Your task to perform on an android device: Open calendar and show me the second week of next month Image 0: 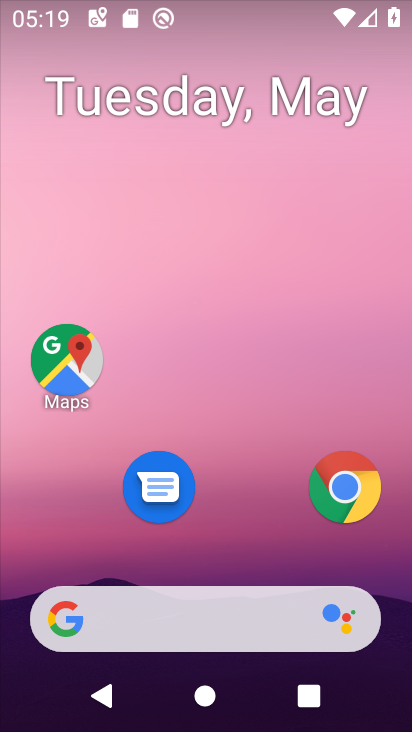
Step 0: drag from (225, 547) to (213, 62)
Your task to perform on an android device: Open calendar and show me the second week of next month Image 1: 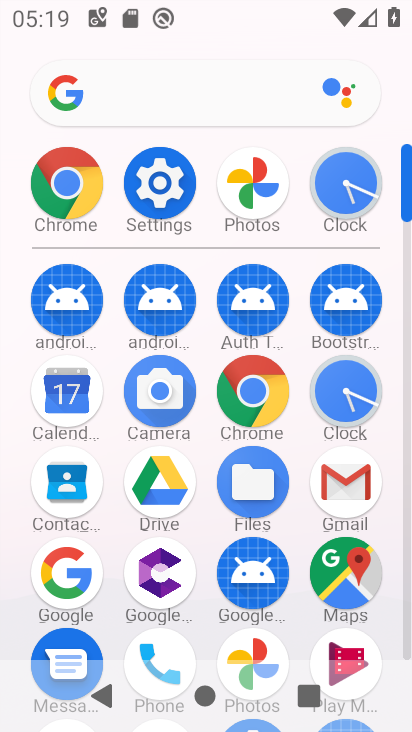
Step 1: click (62, 422)
Your task to perform on an android device: Open calendar and show me the second week of next month Image 2: 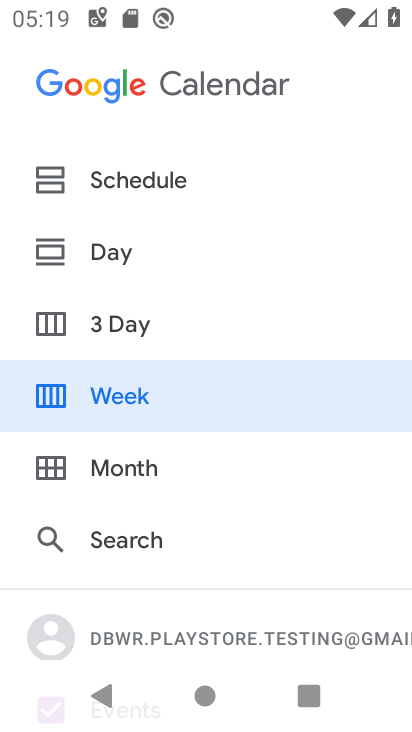
Step 2: click (111, 696)
Your task to perform on an android device: Open calendar and show me the second week of next month Image 3: 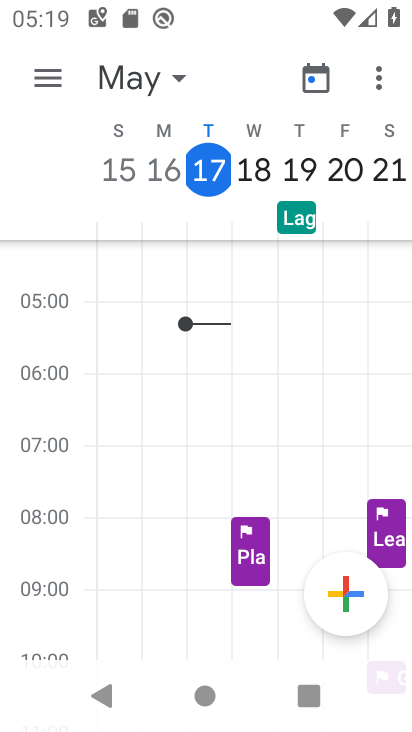
Step 3: click (165, 89)
Your task to perform on an android device: Open calendar and show me the second week of next month Image 4: 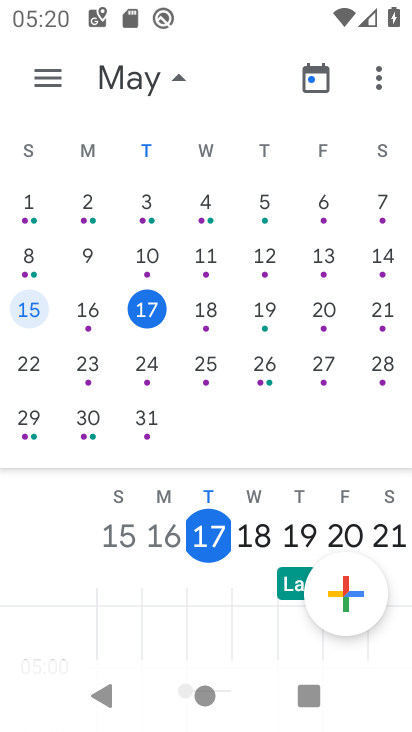
Step 4: drag from (386, 346) to (8, 404)
Your task to perform on an android device: Open calendar and show me the second week of next month Image 5: 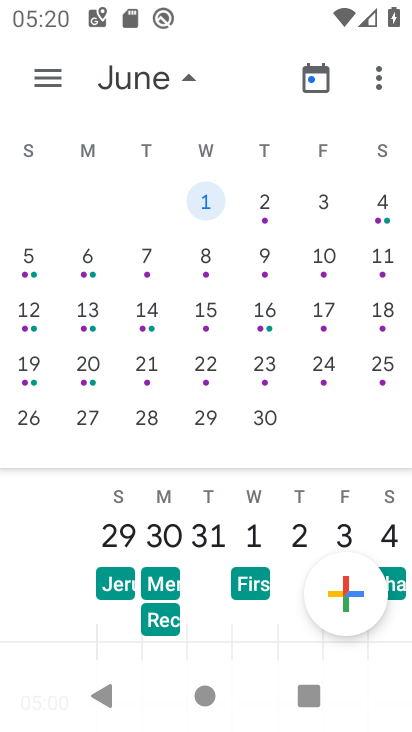
Step 5: click (204, 291)
Your task to perform on an android device: Open calendar and show me the second week of next month Image 6: 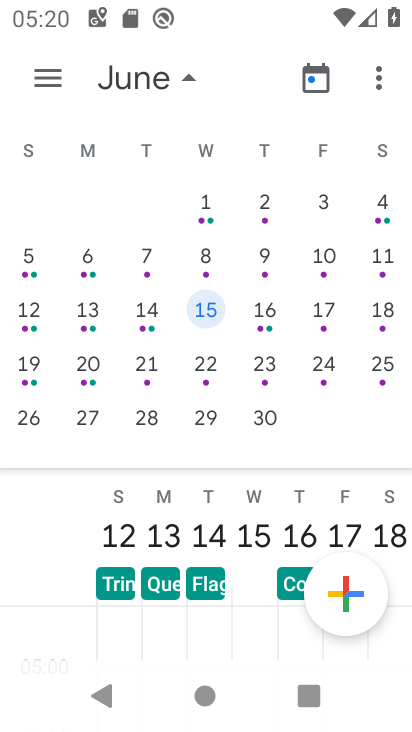
Step 6: task complete